Your task to perform on an android device: open app "Contacts" (install if not already installed) Image 0: 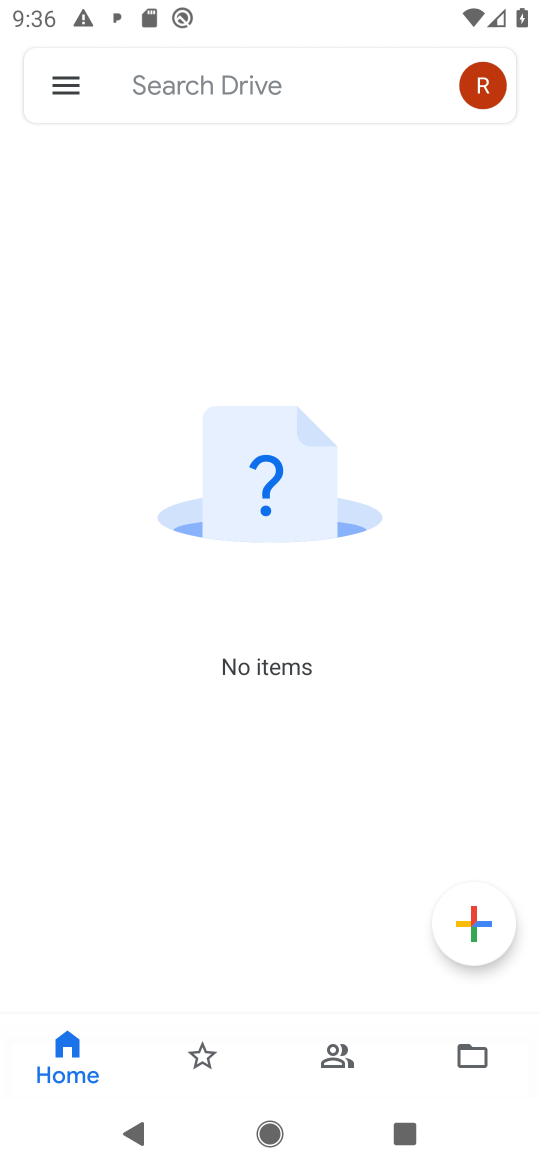
Step 0: press home button
Your task to perform on an android device: open app "Contacts" (install if not already installed) Image 1: 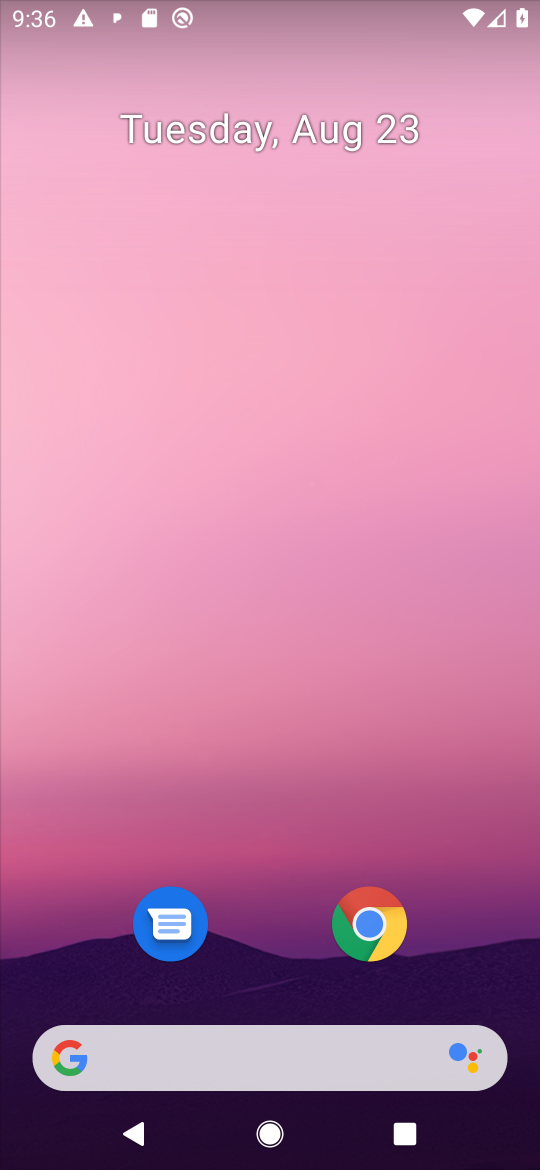
Step 1: drag from (471, 900) to (461, 129)
Your task to perform on an android device: open app "Contacts" (install if not already installed) Image 2: 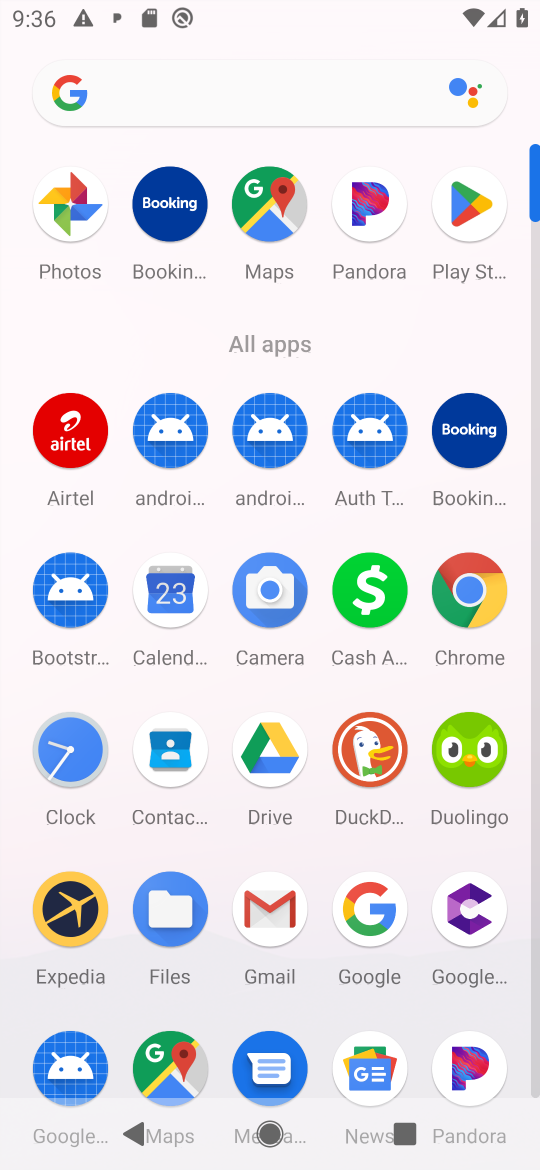
Step 2: click (466, 204)
Your task to perform on an android device: open app "Contacts" (install if not already installed) Image 3: 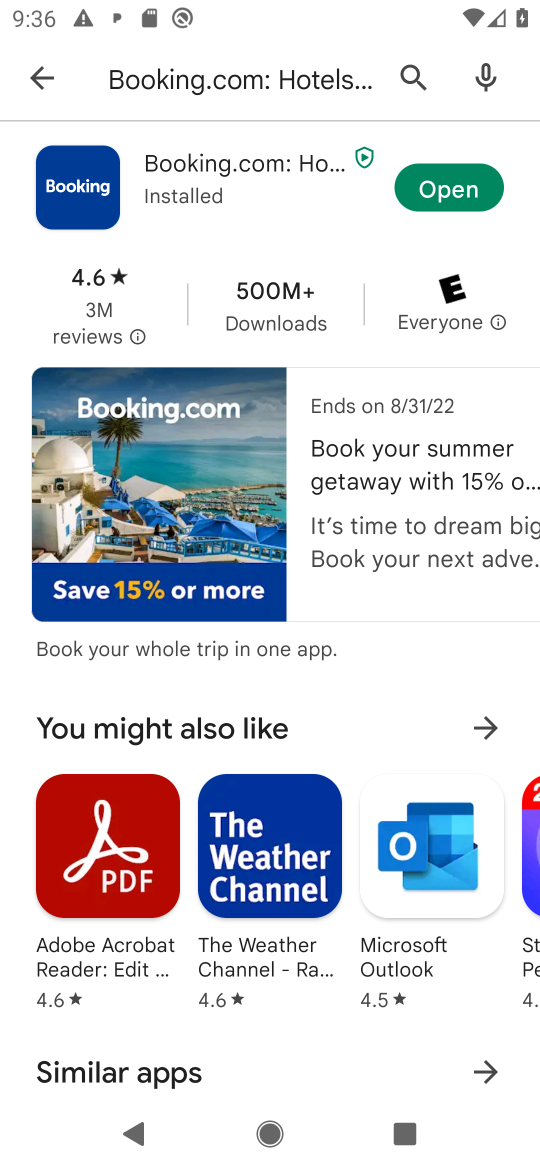
Step 3: press back button
Your task to perform on an android device: open app "Contacts" (install if not already installed) Image 4: 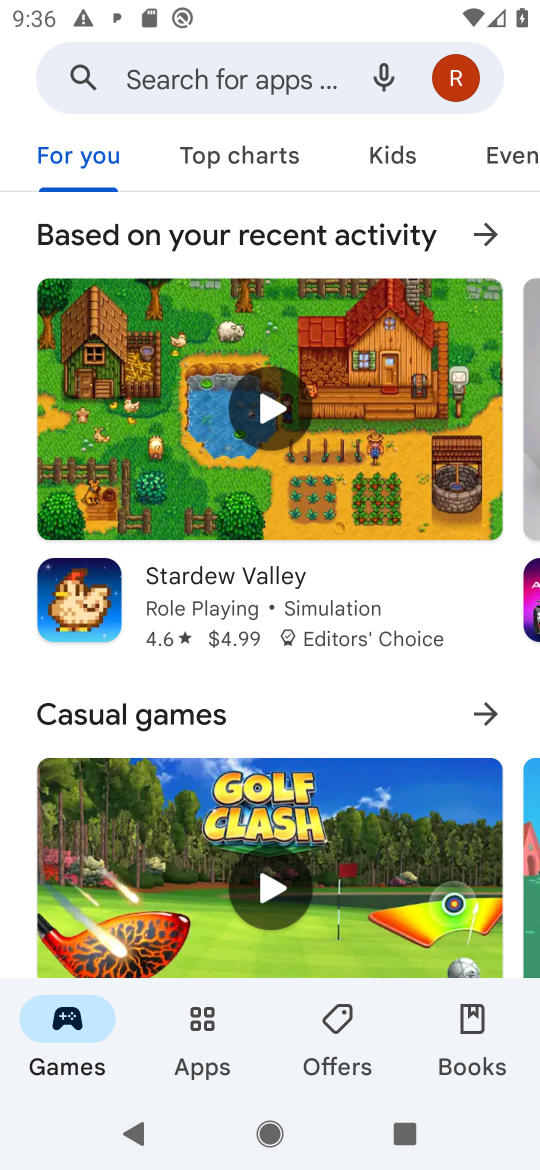
Step 4: click (292, 75)
Your task to perform on an android device: open app "Contacts" (install if not already installed) Image 5: 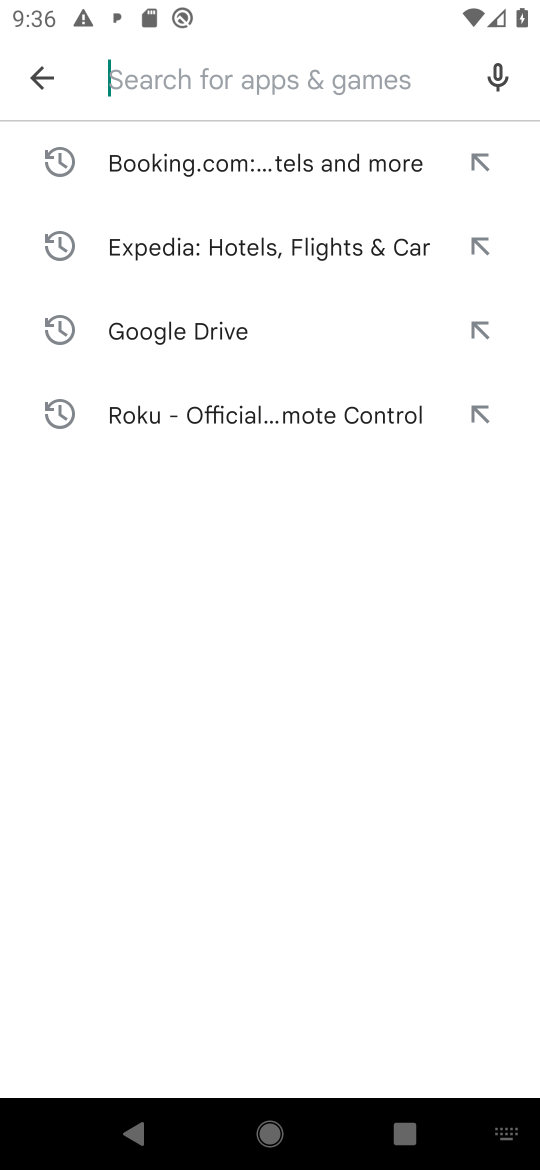
Step 5: press enter
Your task to perform on an android device: open app "Contacts" (install if not already installed) Image 6: 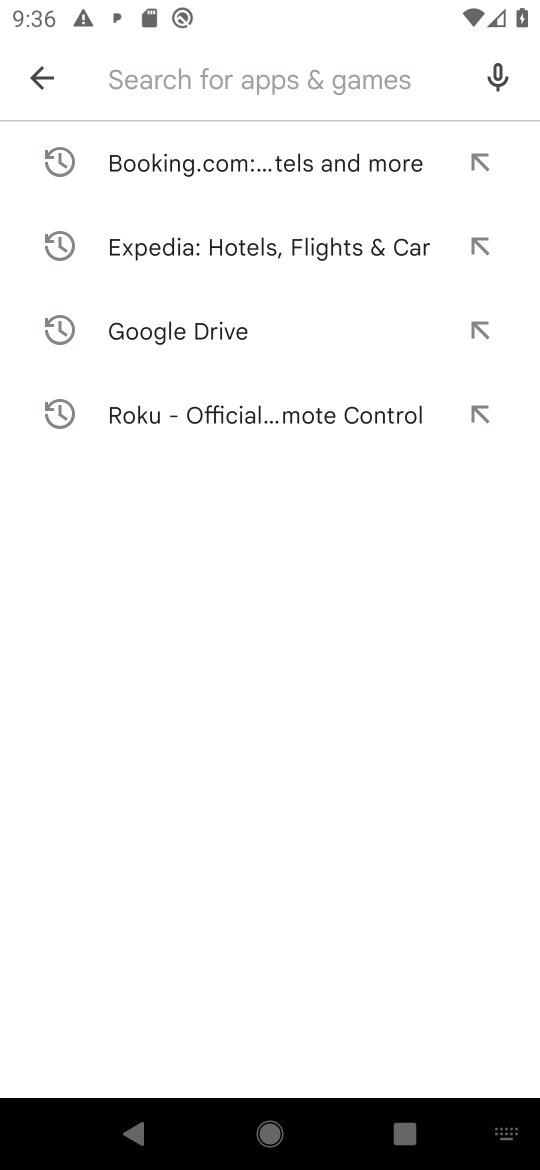
Step 6: type "Contacts"
Your task to perform on an android device: open app "Contacts" (install if not already installed) Image 7: 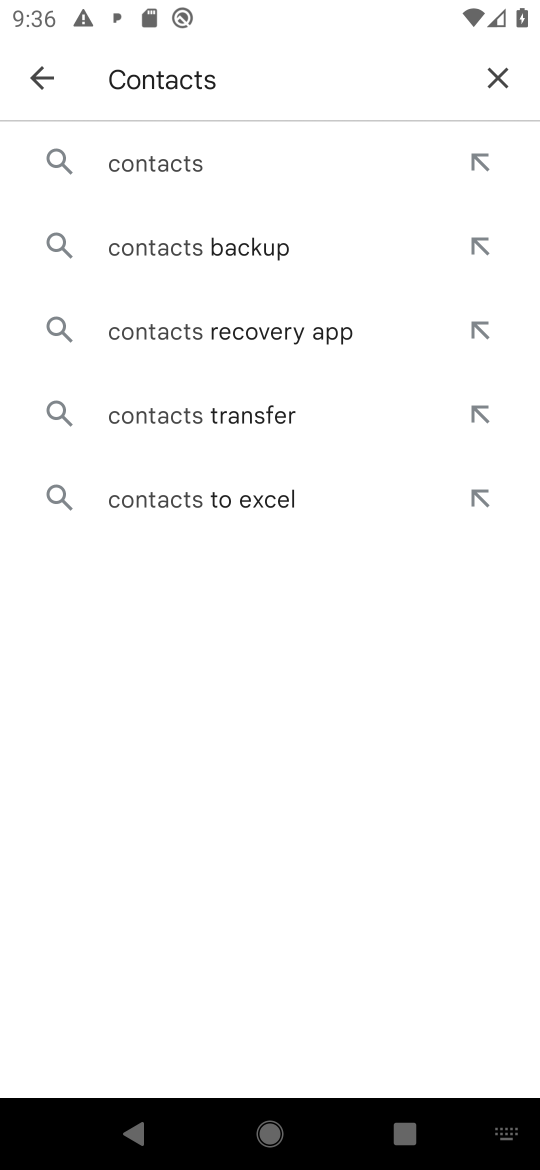
Step 7: click (171, 152)
Your task to perform on an android device: open app "Contacts" (install if not already installed) Image 8: 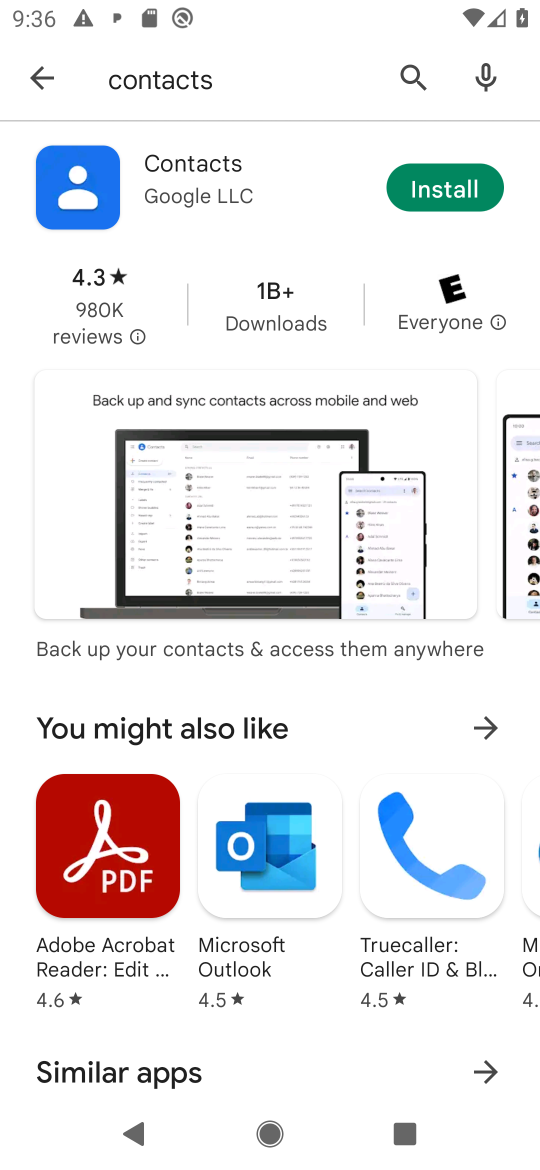
Step 8: click (464, 190)
Your task to perform on an android device: open app "Contacts" (install if not already installed) Image 9: 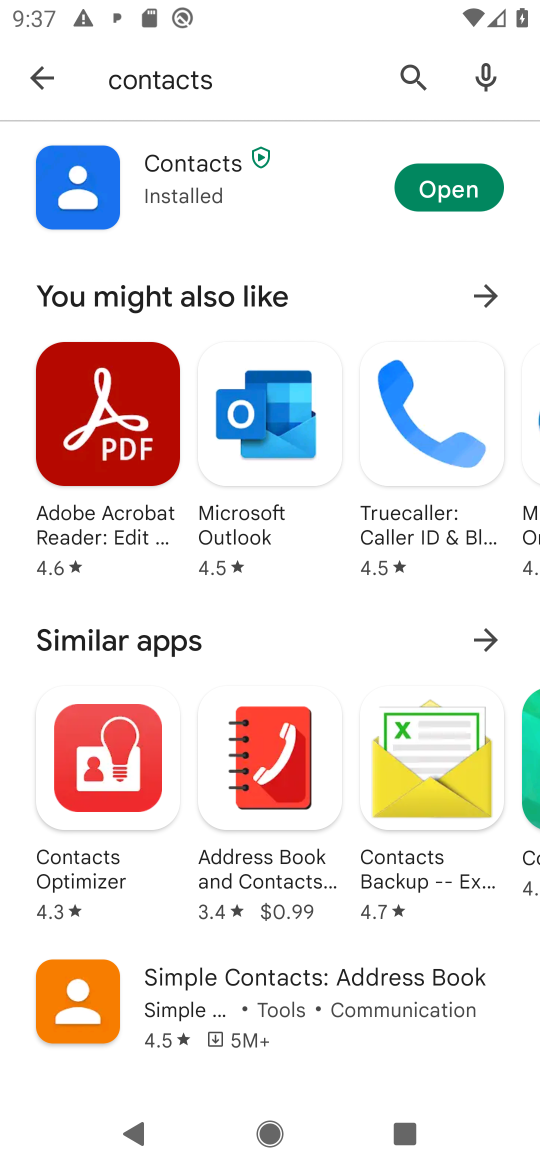
Step 9: click (463, 188)
Your task to perform on an android device: open app "Contacts" (install if not already installed) Image 10: 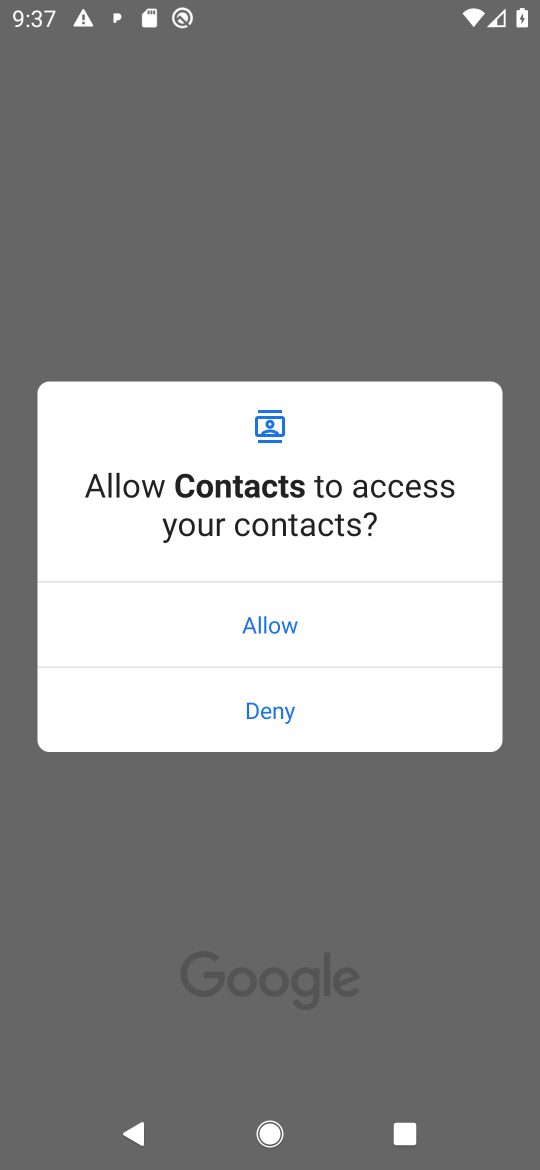
Step 10: click (278, 728)
Your task to perform on an android device: open app "Contacts" (install if not already installed) Image 11: 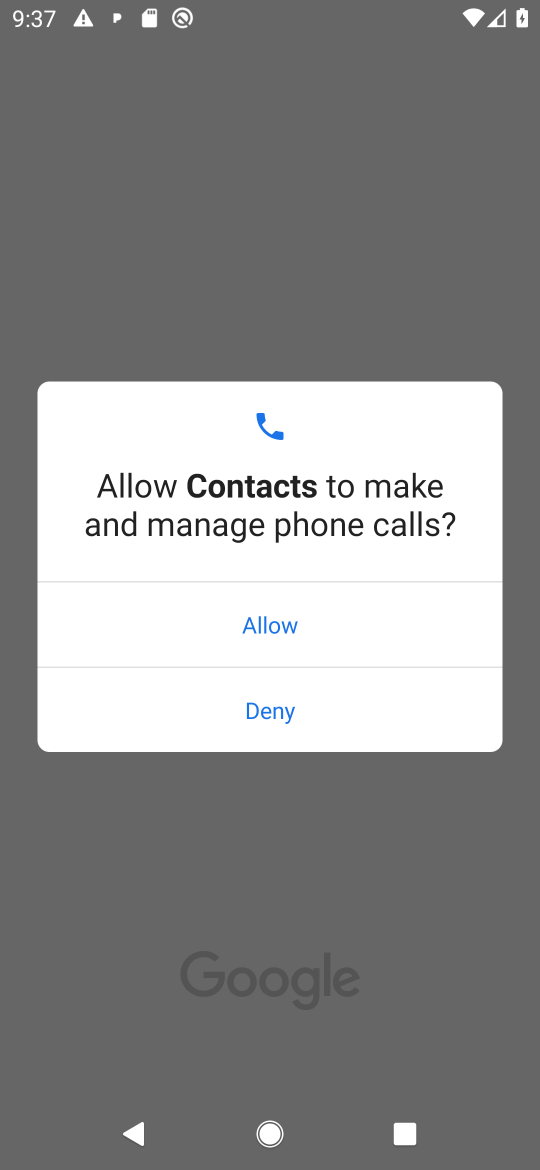
Step 11: click (282, 708)
Your task to perform on an android device: open app "Contacts" (install if not already installed) Image 12: 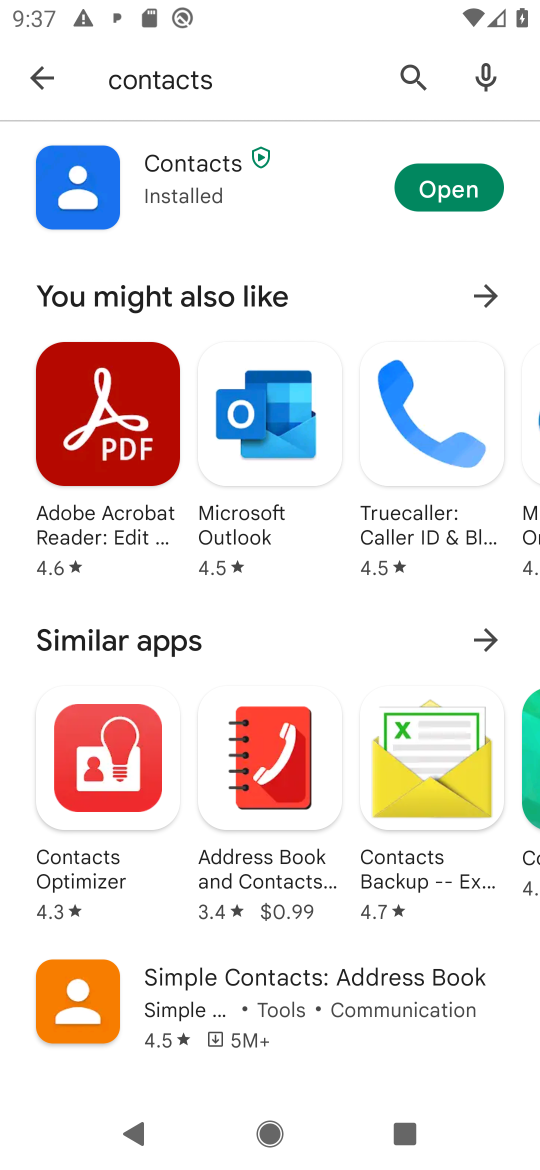
Step 12: click (449, 194)
Your task to perform on an android device: open app "Contacts" (install if not already installed) Image 13: 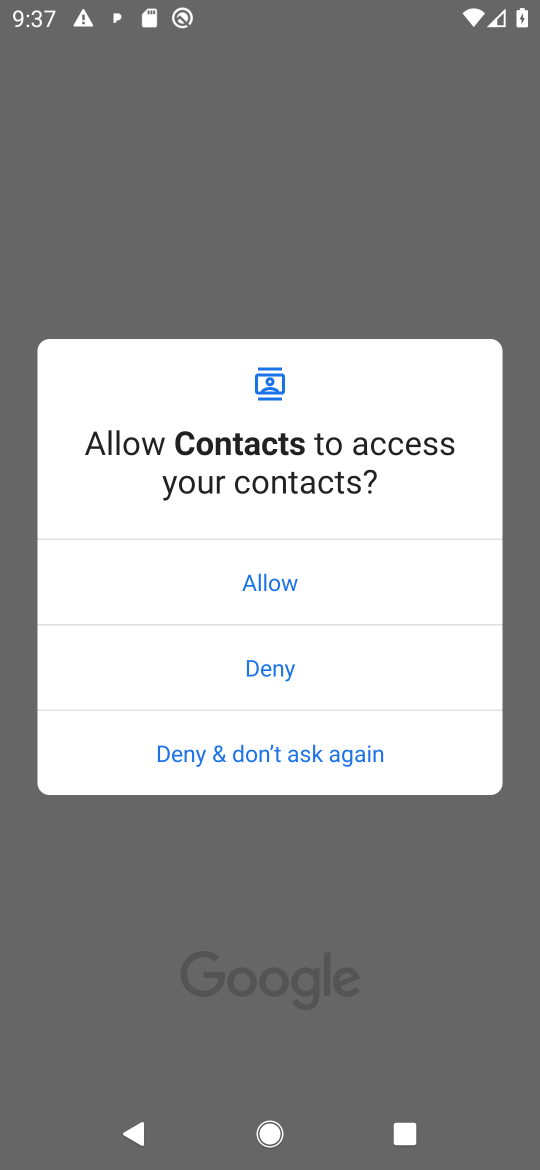
Step 13: task complete